Your task to perform on an android device: read, delete, or share a saved page in the chrome app Image 0: 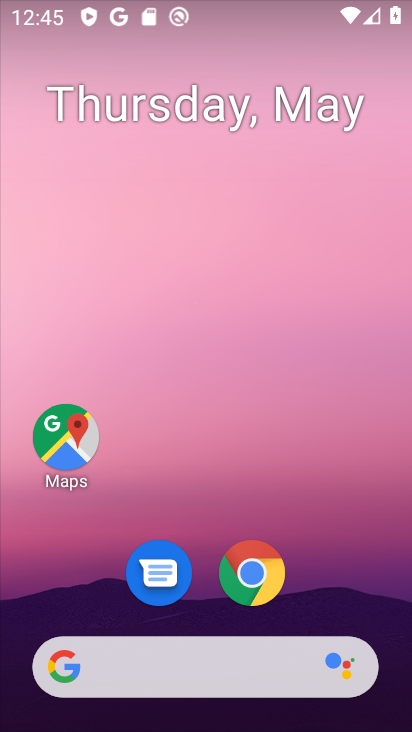
Step 0: drag from (348, 557) to (280, 8)
Your task to perform on an android device: read, delete, or share a saved page in the chrome app Image 1: 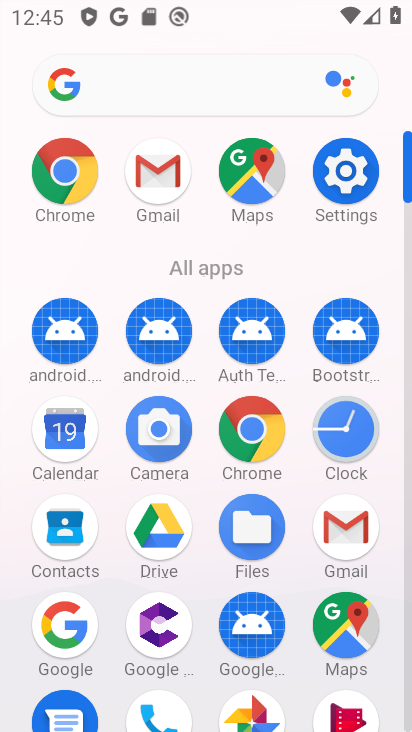
Step 1: click (261, 424)
Your task to perform on an android device: read, delete, or share a saved page in the chrome app Image 2: 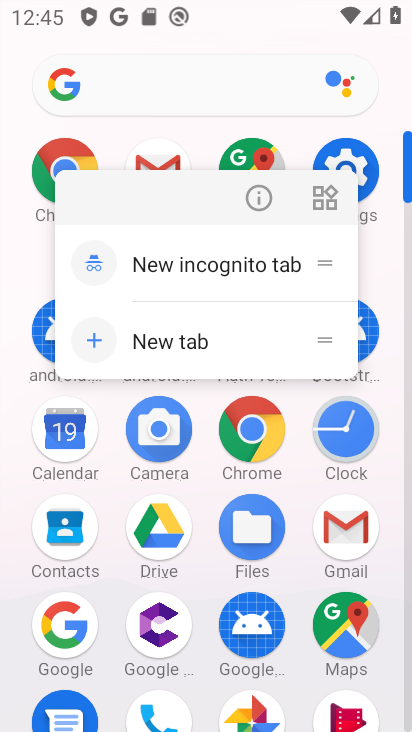
Step 2: click (253, 425)
Your task to perform on an android device: read, delete, or share a saved page in the chrome app Image 3: 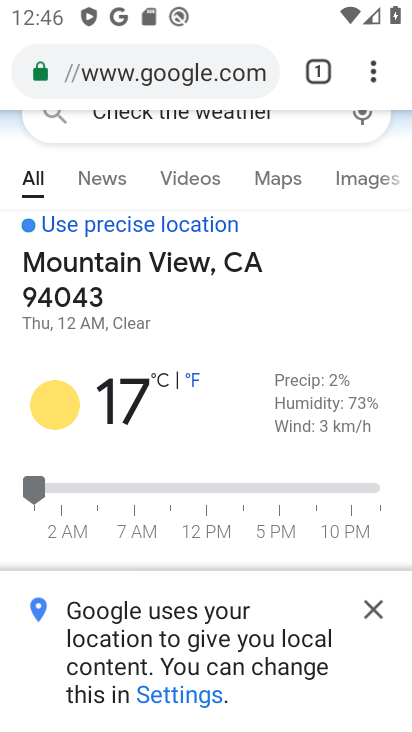
Step 3: task complete